Your task to perform on an android device: find which apps use the phone's location Image 0: 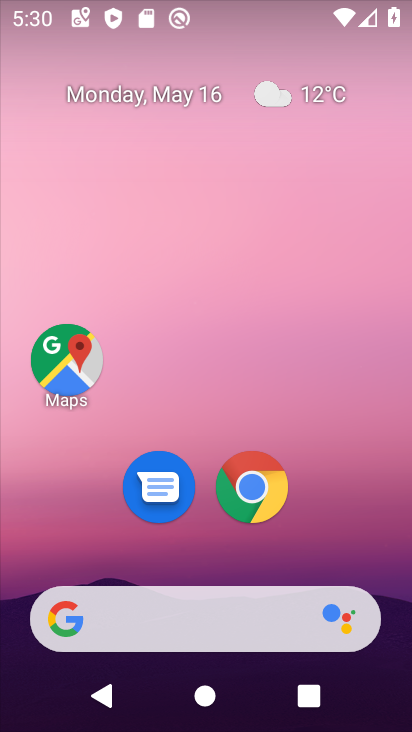
Step 0: drag from (342, 541) to (348, 167)
Your task to perform on an android device: find which apps use the phone's location Image 1: 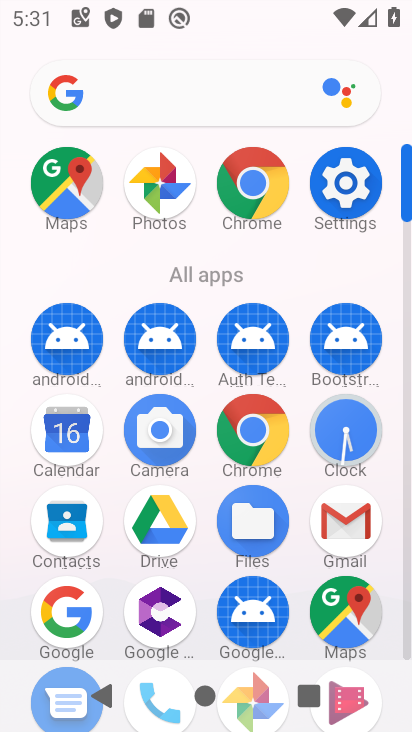
Step 1: click (349, 194)
Your task to perform on an android device: find which apps use the phone's location Image 2: 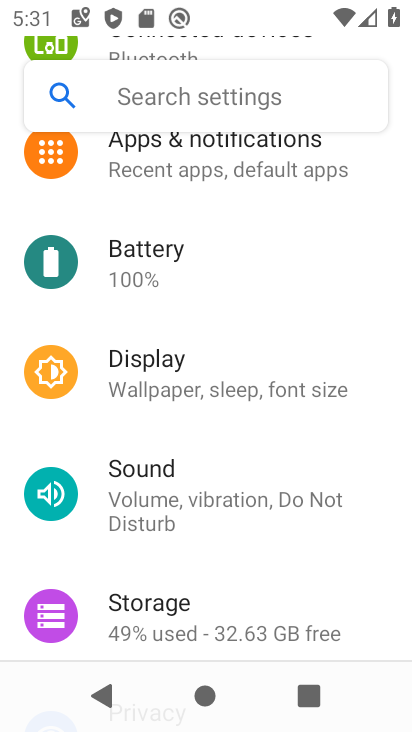
Step 2: drag from (241, 558) to (320, 163)
Your task to perform on an android device: find which apps use the phone's location Image 3: 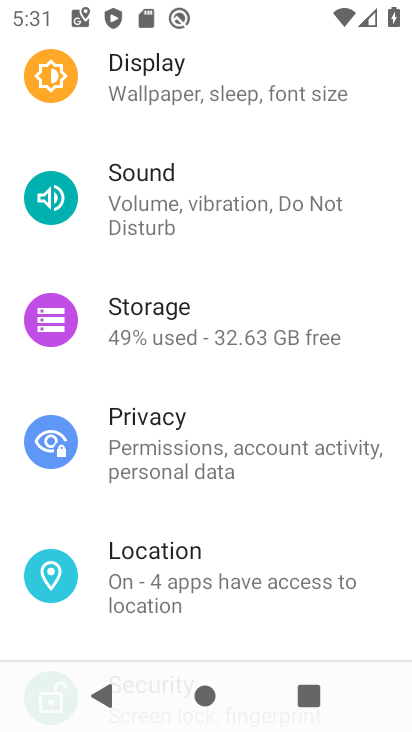
Step 3: click (154, 576)
Your task to perform on an android device: find which apps use the phone's location Image 4: 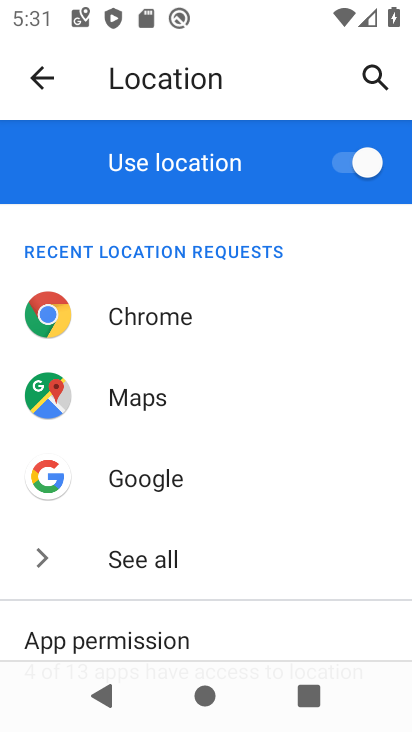
Step 4: drag from (173, 574) to (252, 219)
Your task to perform on an android device: find which apps use the phone's location Image 5: 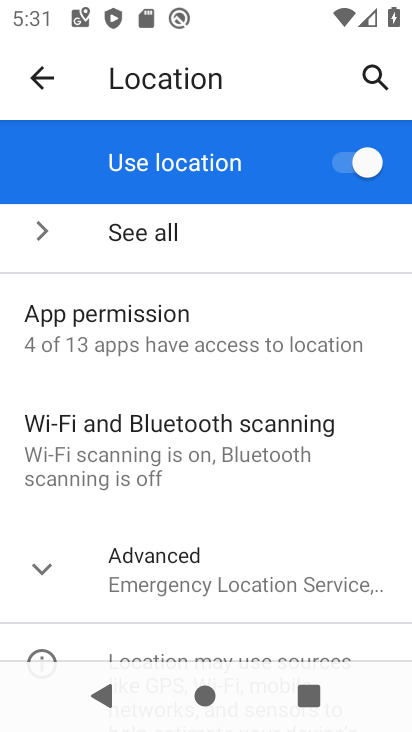
Step 5: drag from (264, 557) to (374, 188)
Your task to perform on an android device: find which apps use the phone's location Image 6: 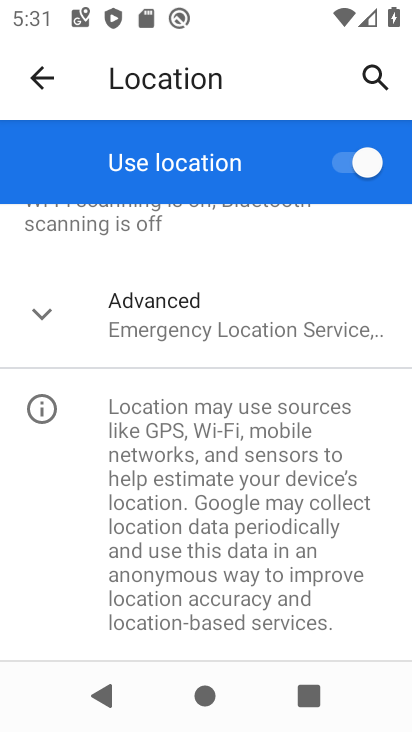
Step 6: click (263, 312)
Your task to perform on an android device: find which apps use the phone's location Image 7: 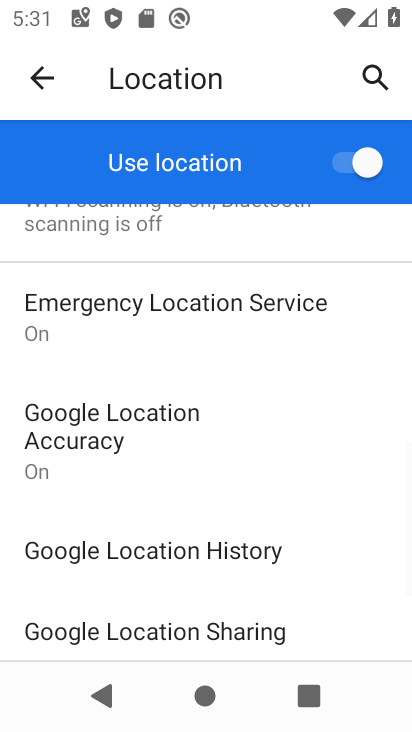
Step 7: drag from (252, 491) to (262, 146)
Your task to perform on an android device: find which apps use the phone's location Image 8: 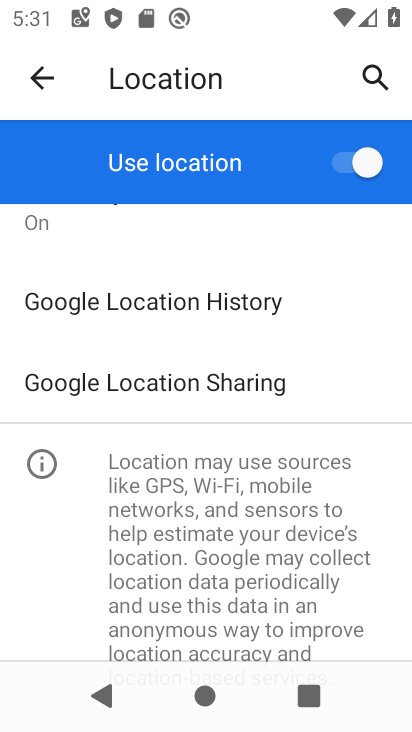
Step 8: drag from (221, 344) to (249, 581)
Your task to perform on an android device: find which apps use the phone's location Image 9: 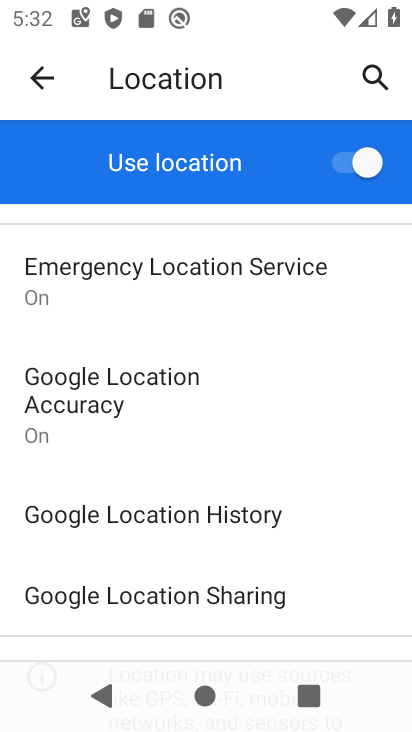
Step 9: drag from (195, 493) to (258, 674)
Your task to perform on an android device: find which apps use the phone's location Image 10: 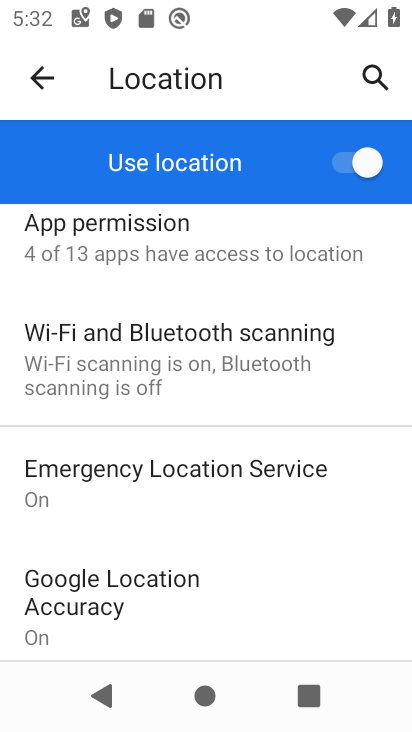
Step 10: drag from (215, 333) to (258, 531)
Your task to perform on an android device: find which apps use the phone's location Image 11: 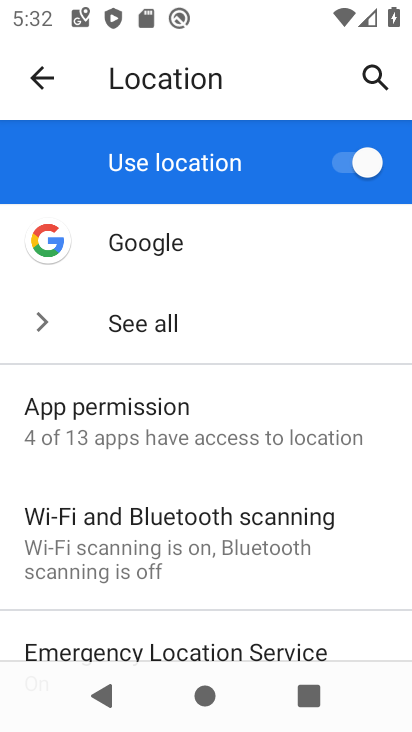
Step 11: click (200, 460)
Your task to perform on an android device: find which apps use the phone's location Image 12: 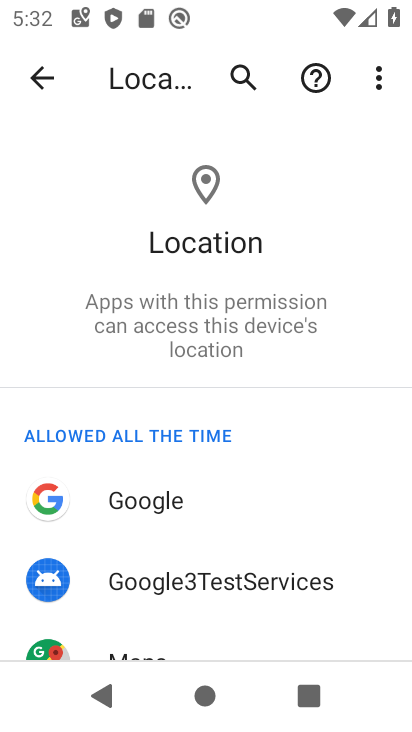
Step 12: task complete